Your task to perform on an android device: change the clock display to digital Image 0: 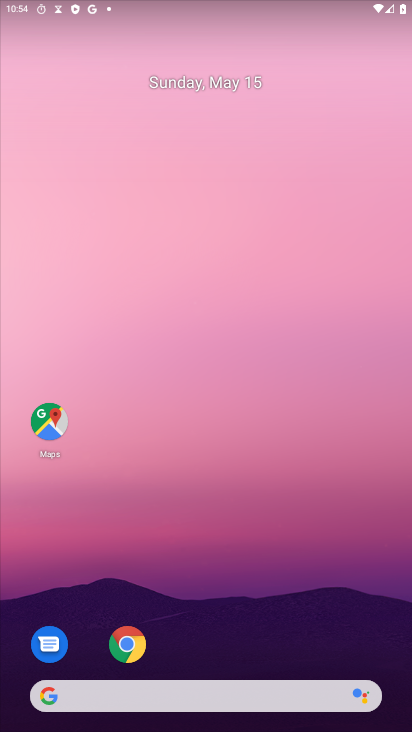
Step 0: drag from (309, 658) to (298, 165)
Your task to perform on an android device: change the clock display to digital Image 1: 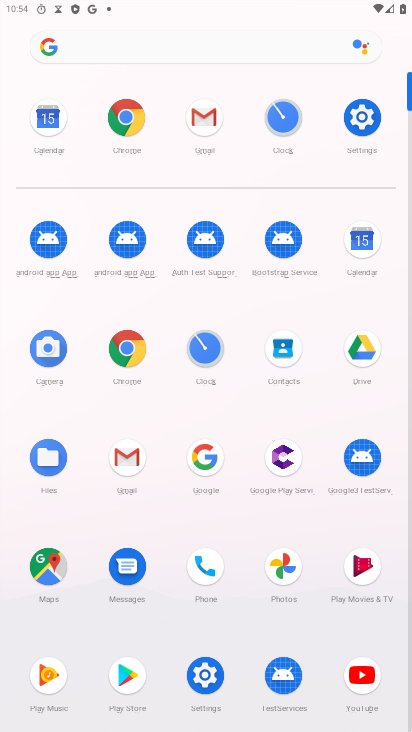
Step 1: click (274, 117)
Your task to perform on an android device: change the clock display to digital Image 2: 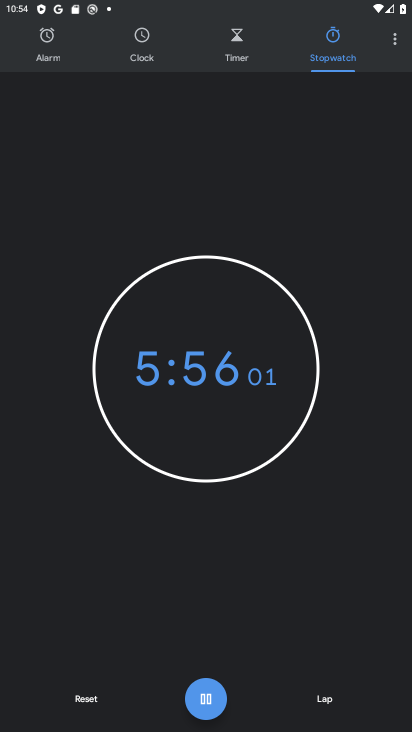
Step 2: click (392, 45)
Your task to perform on an android device: change the clock display to digital Image 3: 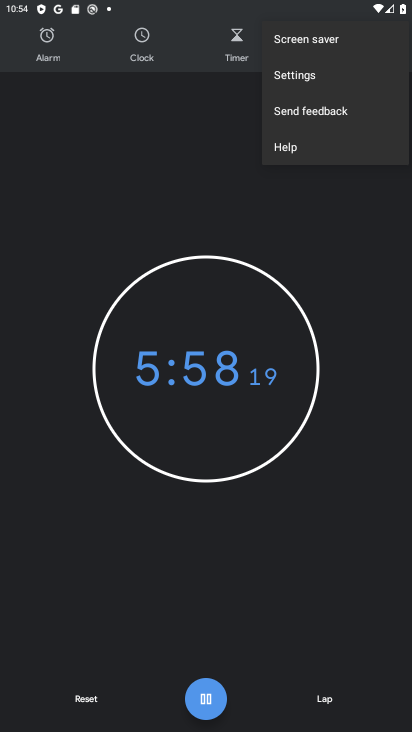
Step 3: click (363, 68)
Your task to perform on an android device: change the clock display to digital Image 4: 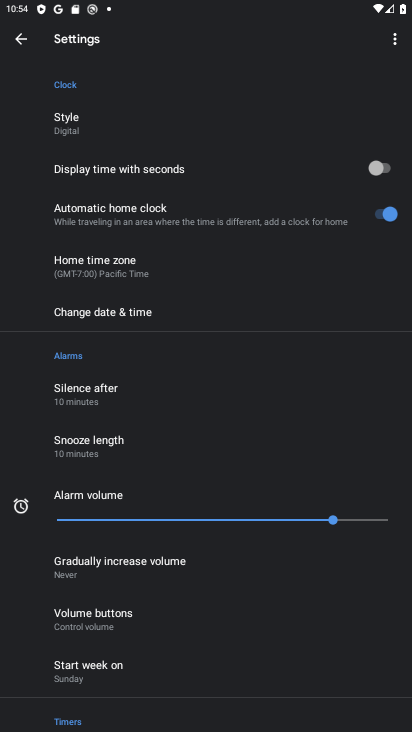
Step 4: click (245, 125)
Your task to perform on an android device: change the clock display to digital Image 5: 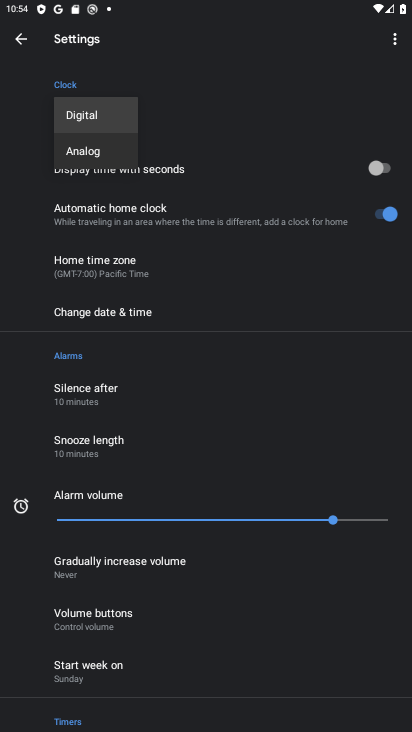
Step 5: click (128, 112)
Your task to perform on an android device: change the clock display to digital Image 6: 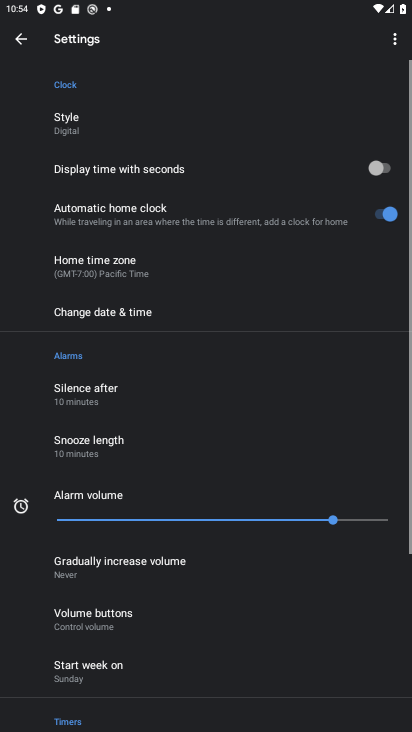
Step 6: task complete